Your task to perform on an android device: open a bookmark in the chrome app Image 0: 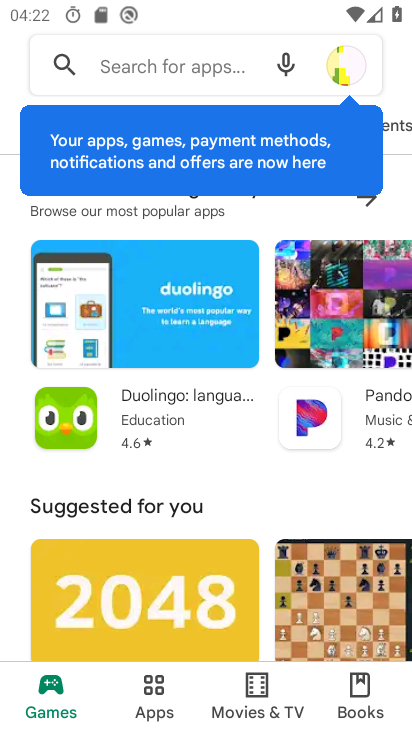
Step 0: press home button
Your task to perform on an android device: open a bookmark in the chrome app Image 1: 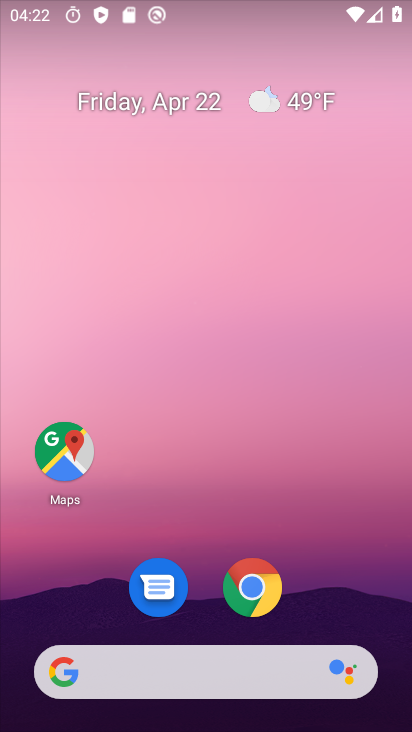
Step 1: click (257, 594)
Your task to perform on an android device: open a bookmark in the chrome app Image 2: 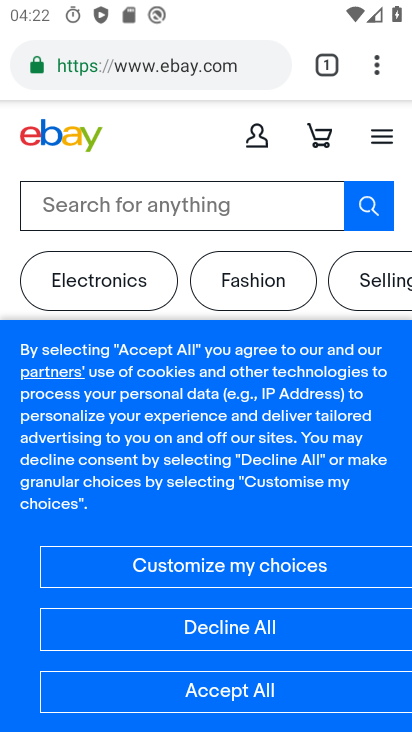
Step 2: click (379, 64)
Your task to perform on an android device: open a bookmark in the chrome app Image 3: 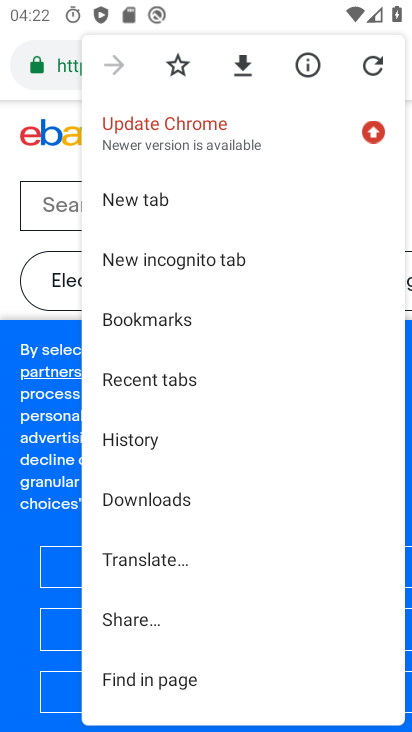
Step 3: click (177, 327)
Your task to perform on an android device: open a bookmark in the chrome app Image 4: 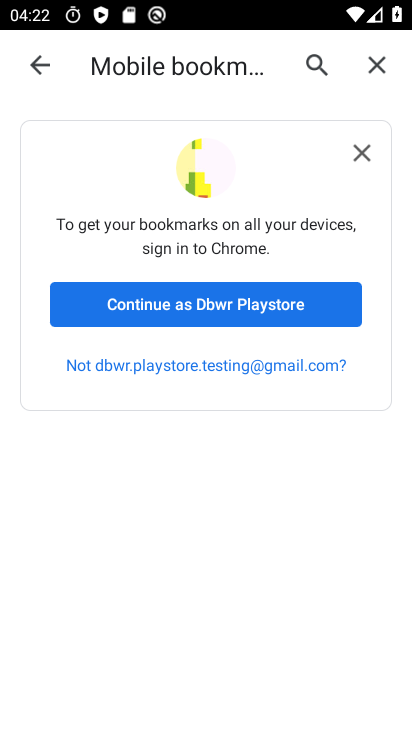
Step 4: click (221, 303)
Your task to perform on an android device: open a bookmark in the chrome app Image 5: 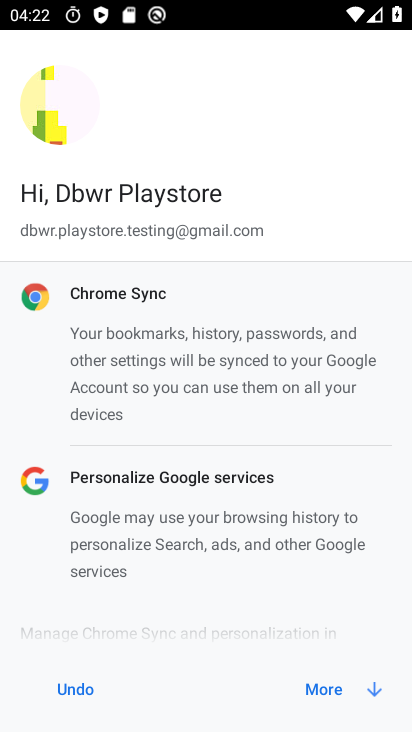
Step 5: click (311, 688)
Your task to perform on an android device: open a bookmark in the chrome app Image 6: 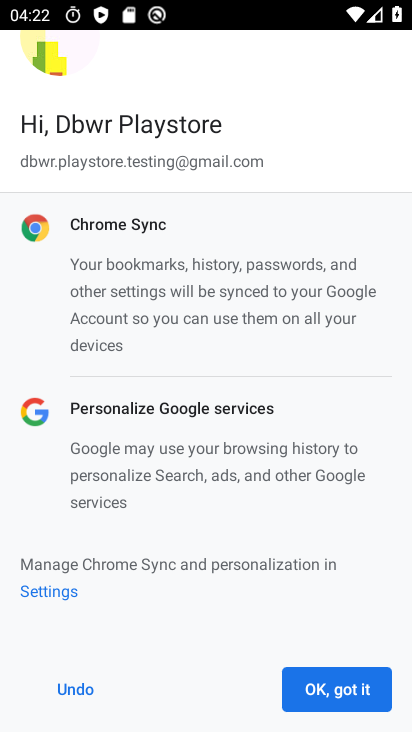
Step 6: click (311, 688)
Your task to perform on an android device: open a bookmark in the chrome app Image 7: 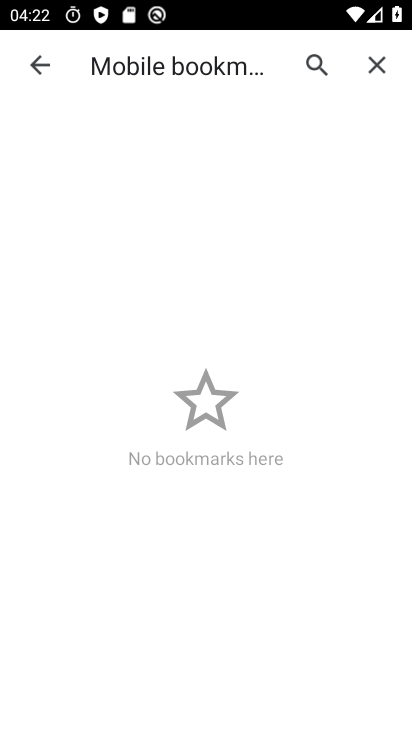
Step 7: task complete